Your task to perform on an android device: Go to internet settings Image 0: 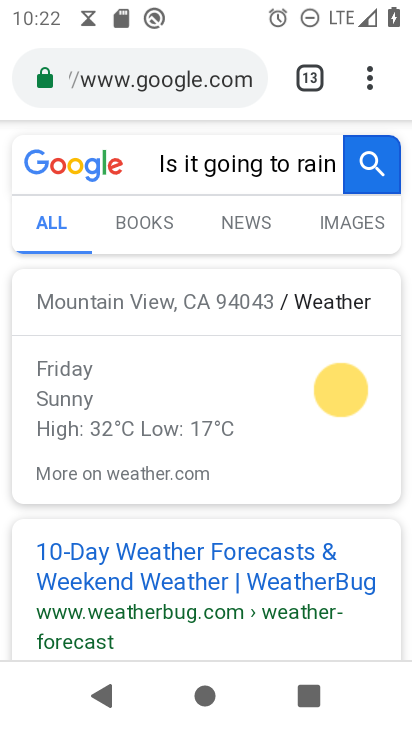
Step 0: press home button
Your task to perform on an android device: Go to internet settings Image 1: 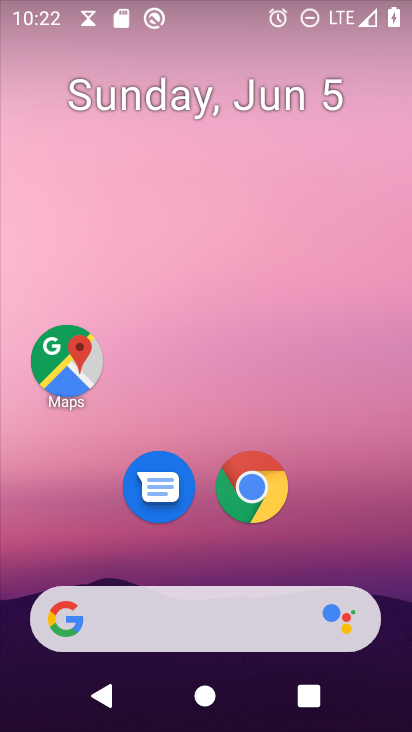
Step 1: drag from (349, 535) to (304, 235)
Your task to perform on an android device: Go to internet settings Image 2: 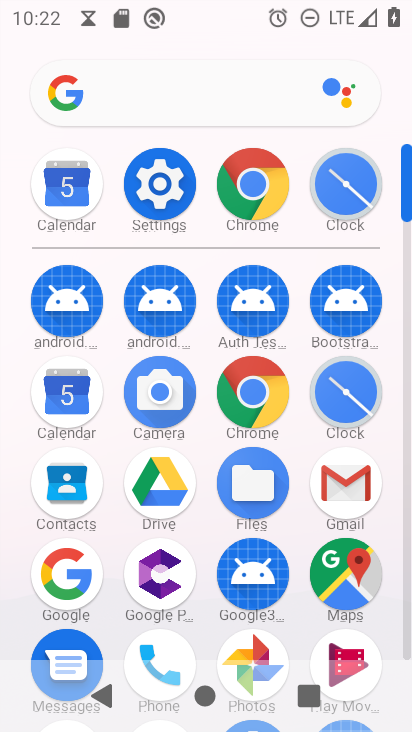
Step 2: click (141, 175)
Your task to perform on an android device: Go to internet settings Image 3: 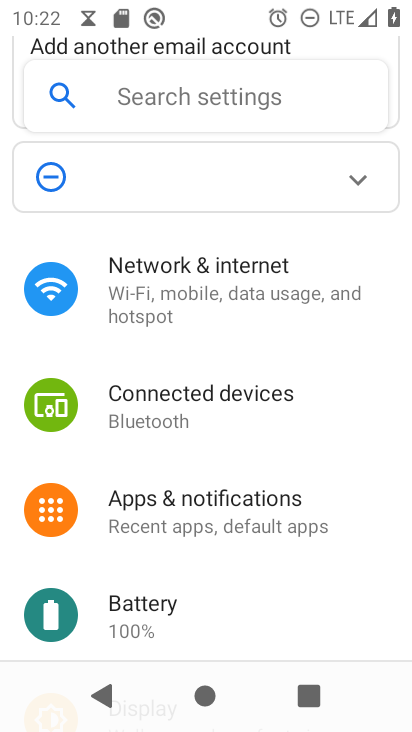
Step 3: click (191, 272)
Your task to perform on an android device: Go to internet settings Image 4: 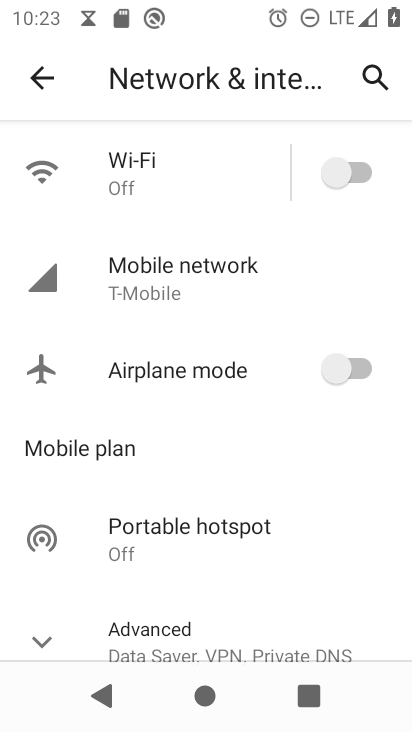
Step 4: task complete